Your task to perform on an android device: change timer sound Image 0: 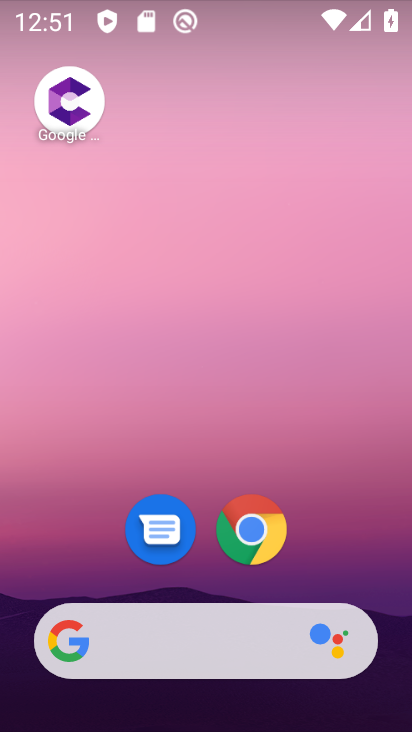
Step 0: drag from (382, 573) to (249, 164)
Your task to perform on an android device: change timer sound Image 1: 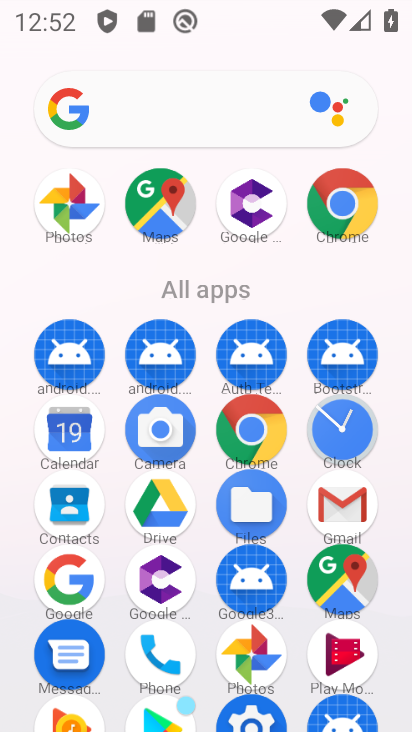
Step 1: click (343, 429)
Your task to perform on an android device: change timer sound Image 2: 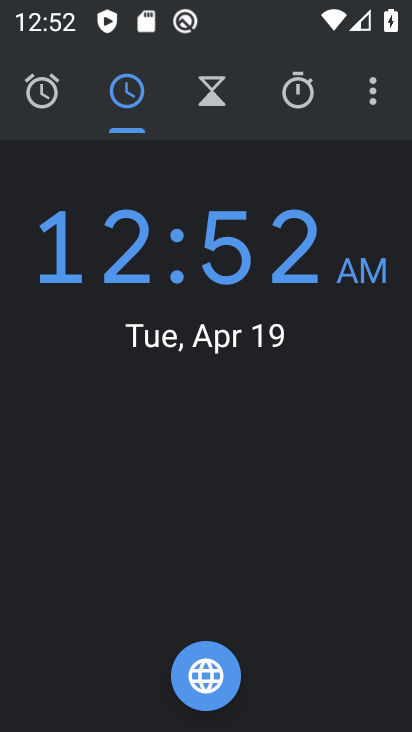
Step 2: click (380, 115)
Your task to perform on an android device: change timer sound Image 3: 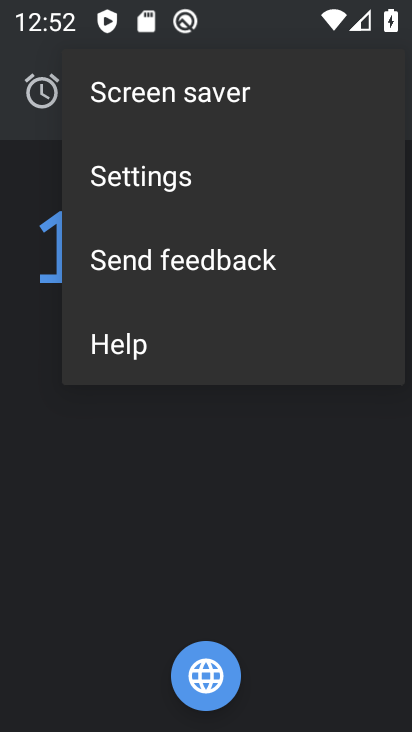
Step 3: click (311, 172)
Your task to perform on an android device: change timer sound Image 4: 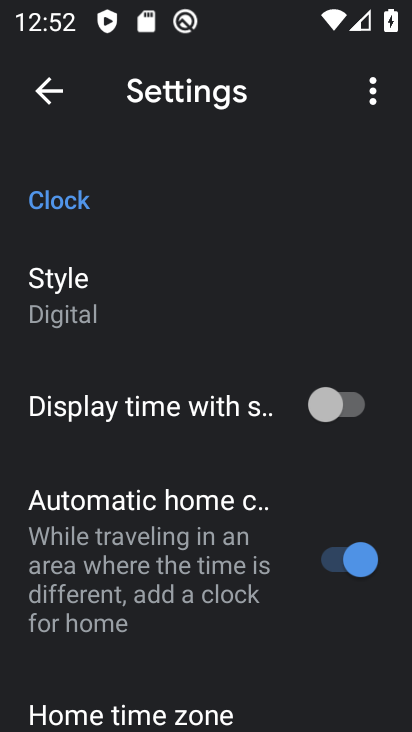
Step 4: drag from (256, 620) to (197, 135)
Your task to perform on an android device: change timer sound Image 5: 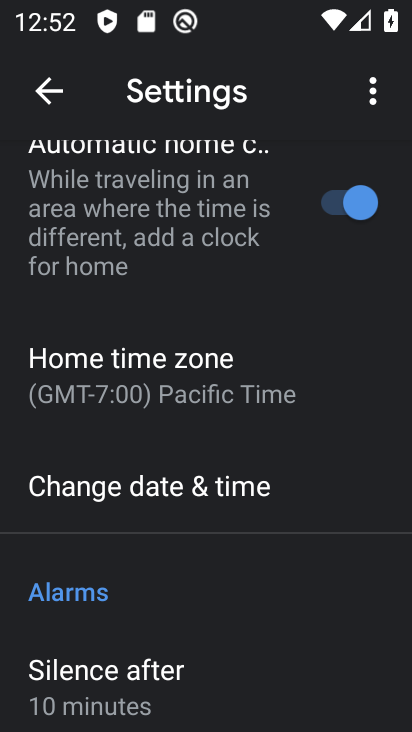
Step 5: drag from (266, 613) to (237, 192)
Your task to perform on an android device: change timer sound Image 6: 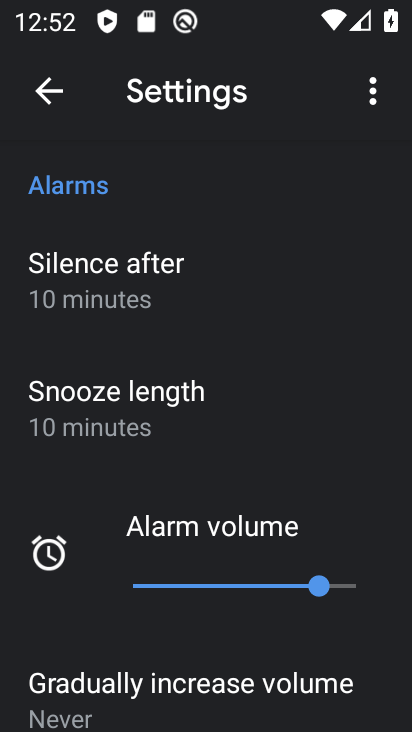
Step 6: drag from (242, 614) to (207, 171)
Your task to perform on an android device: change timer sound Image 7: 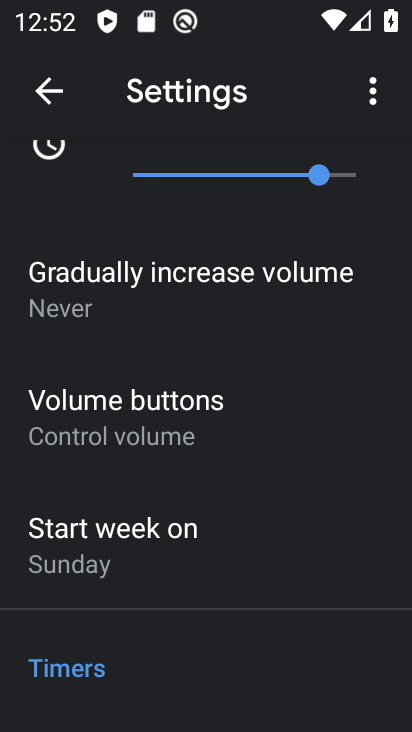
Step 7: drag from (234, 617) to (212, 195)
Your task to perform on an android device: change timer sound Image 8: 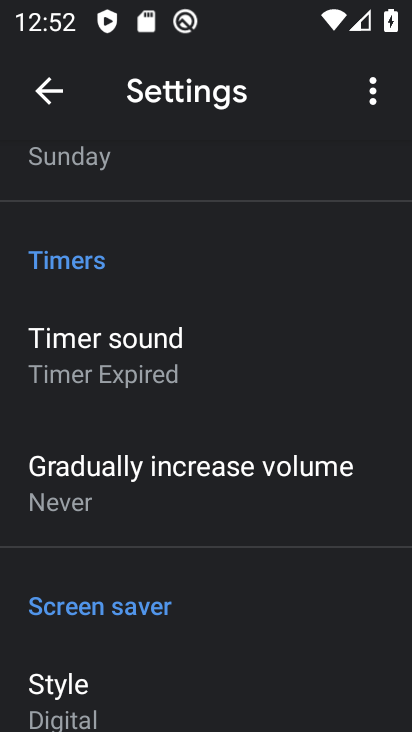
Step 8: click (243, 358)
Your task to perform on an android device: change timer sound Image 9: 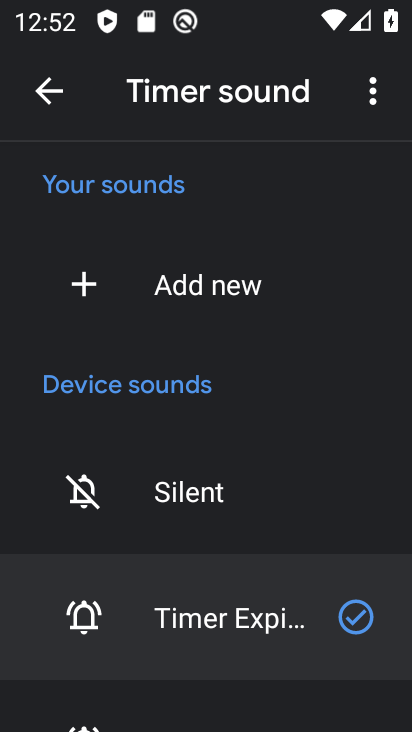
Step 9: click (224, 699)
Your task to perform on an android device: change timer sound Image 10: 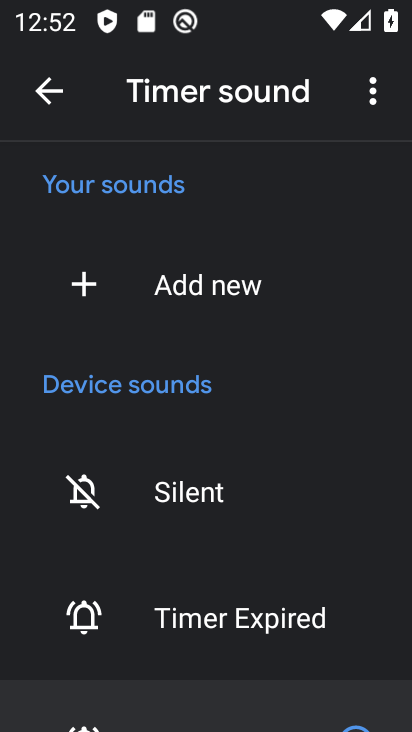
Step 10: task complete